Your task to perform on an android device: Go to Google maps Image 0: 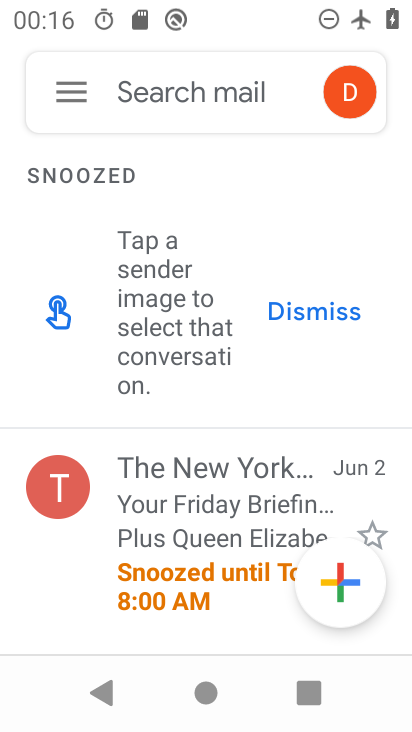
Step 0: press home button
Your task to perform on an android device: Go to Google maps Image 1: 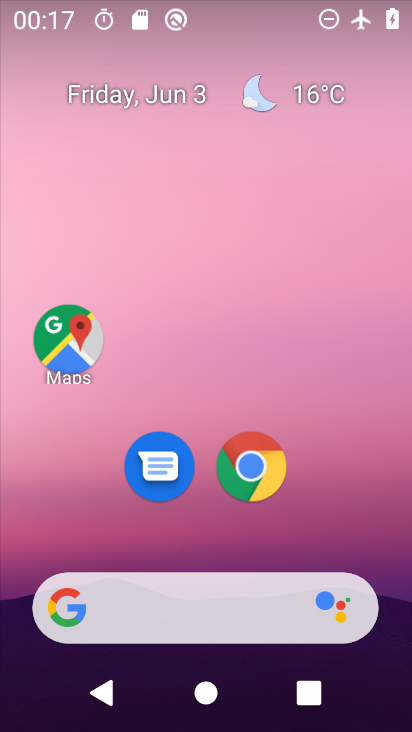
Step 1: click (70, 351)
Your task to perform on an android device: Go to Google maps Image 2: 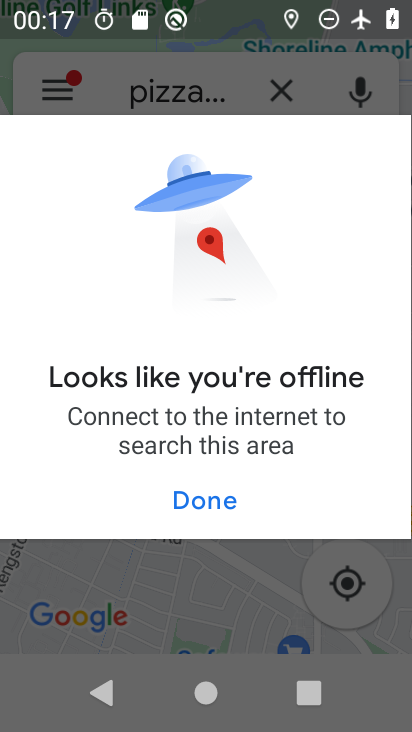
Step 2: task complete